Your task to perform on an android device: Show me popular videos on Youtube Image 0: 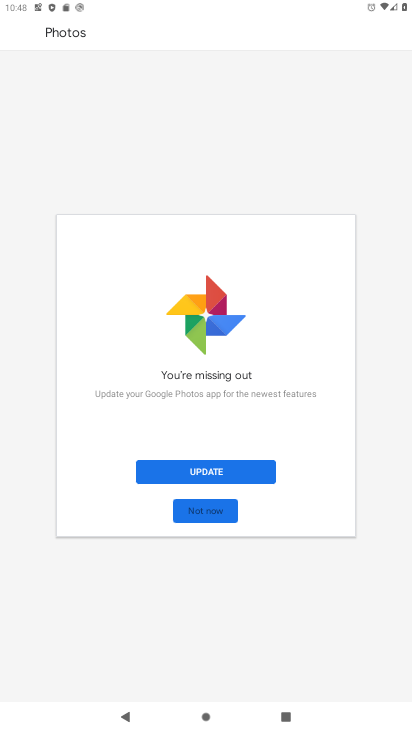
Step 0: press home button
Your task to perform on an android device: Show me popular videos on Youtube Image 1: 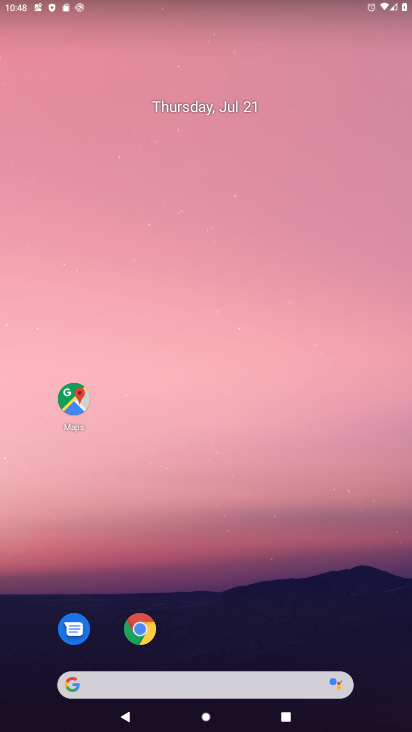
Step 1: drag from (218, 630) to (151, 201)
Your task to perform on an android device: Show me popular videos on Youtube Image 2: 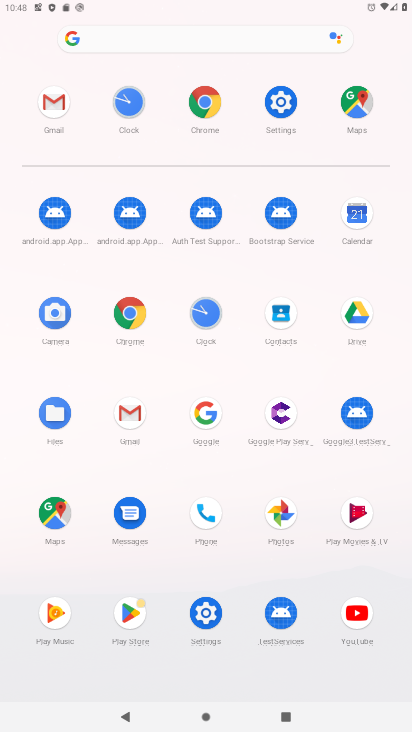
Step 2: click (350, 618)
Your task to perform on an android device: Show me popular videos on Youtube Image 3: 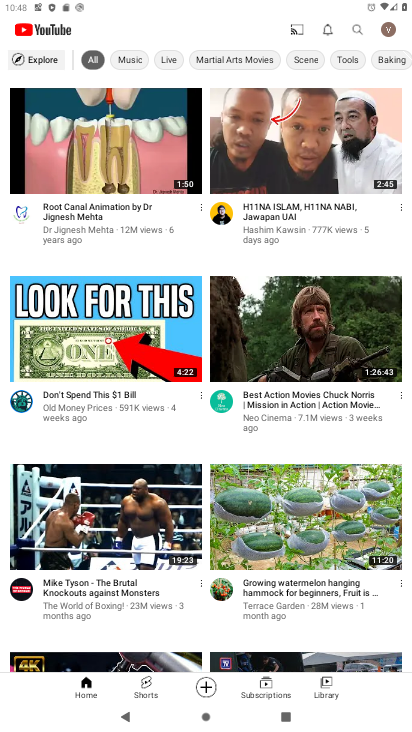
Step 3: click (161, 675)
Your task to perform on an android device: Show me popular videos on Youtube Image 4: 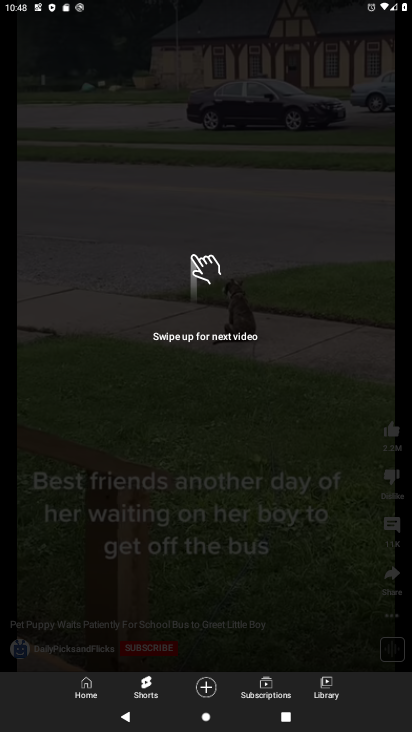
Step 4: click (88, 695)
Your task to perform on an android device: Show me popular videos on Youtube Image 5: 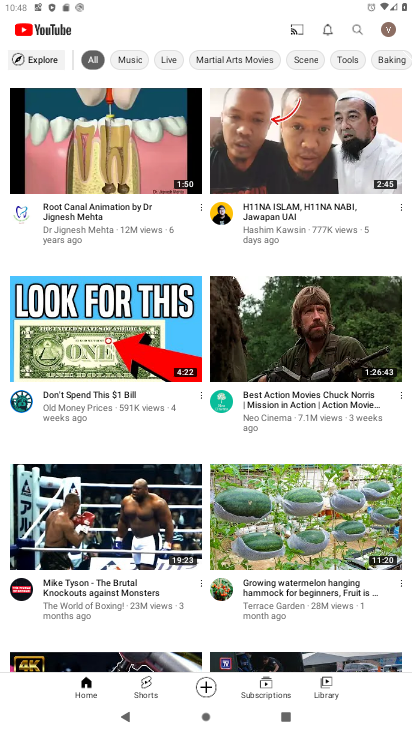
Step 5: click (28, 63)
Your task to perform on an android device: Show me popular videos on Youtube Image 6: 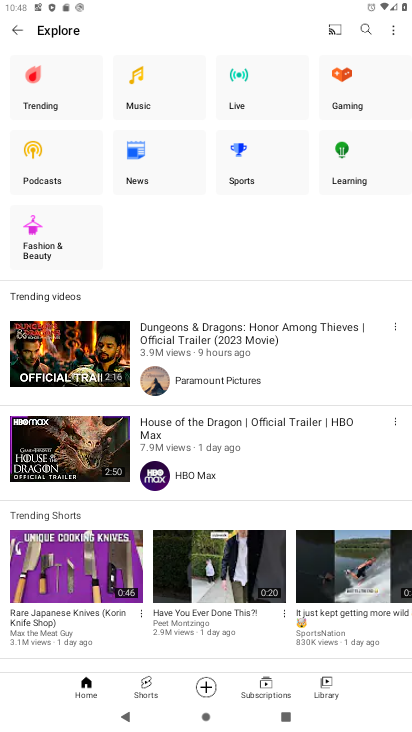
Step 6: click (28, 63)
Your task to perform on an android device: Show me popular videos on Youtube Image 7: 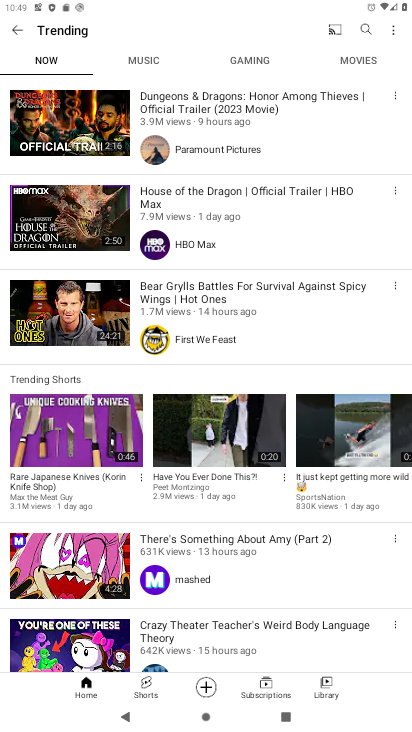
Step 7: task complete